Your task to perform on an android device: delete the emails in spam in the gmail app Image 0: 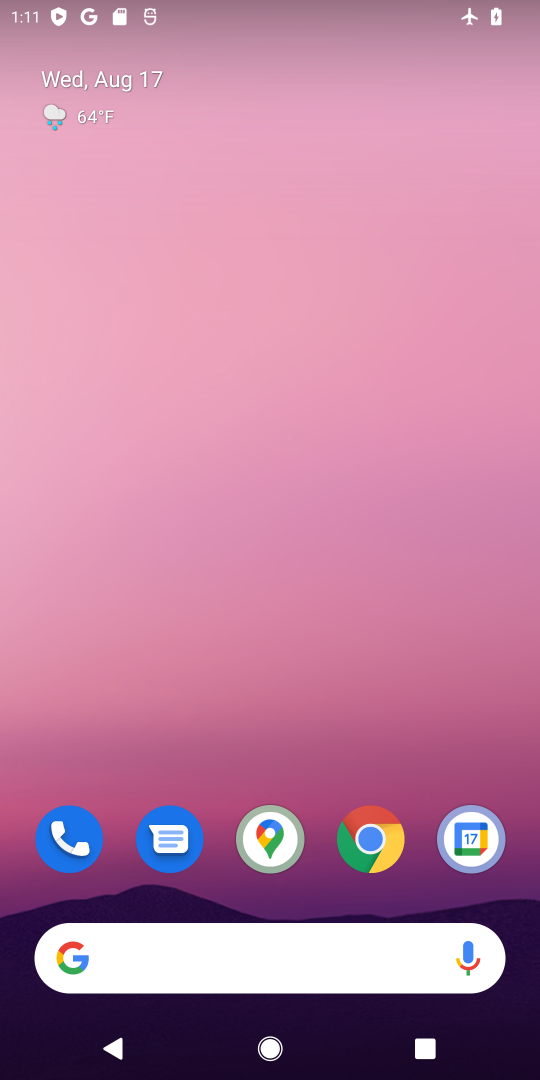
Step 0: drag from (286, 977) to (306, 214)
Your task to perform on an android device: delete the emails in spam in the gmail app Image 1: 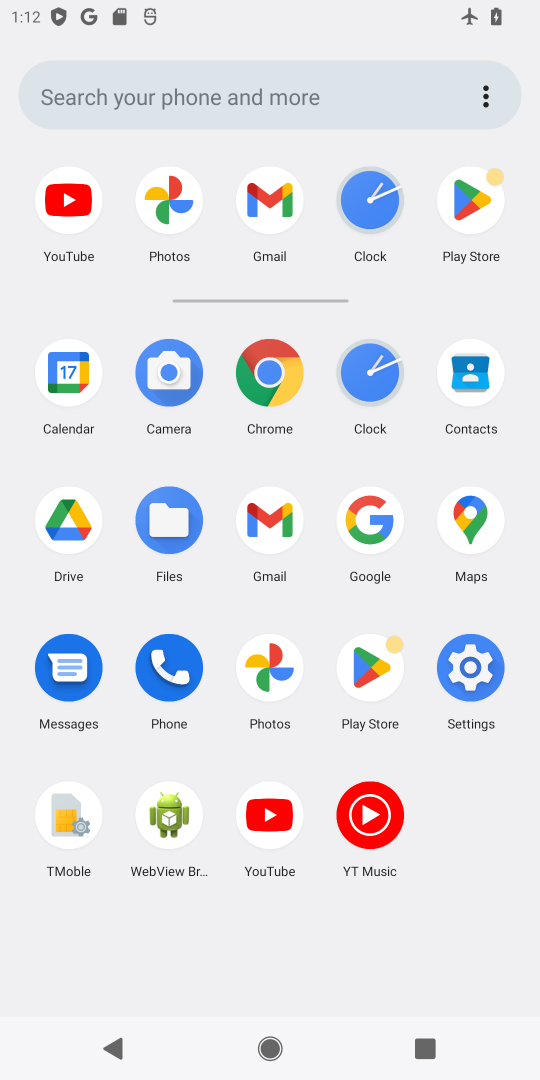
Step 1: click (269, 203)
Your task to perform on an android device: delete the emails in spam in the gmail app Image 2: 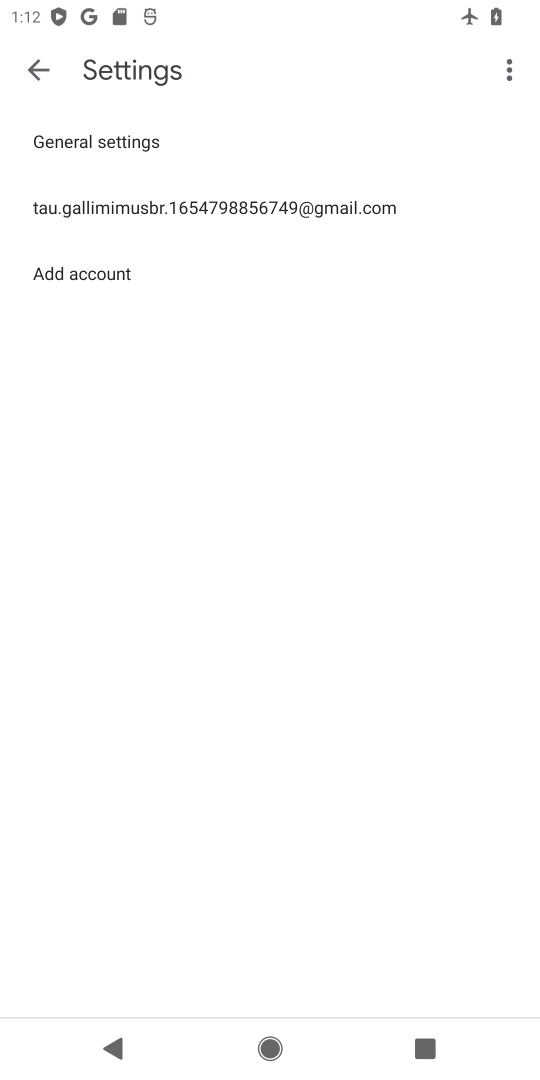
Step 2: press back button
Your task to perform on an android device: delete the emails in spam in the gmail app Image 3: 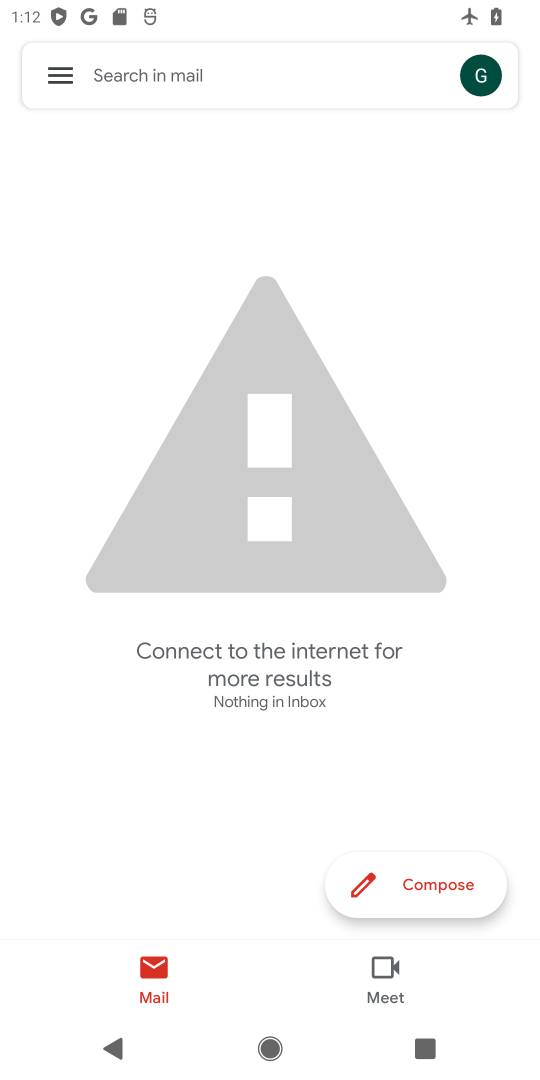
Step 3: click (65, 81)
Your task to perform on an android device: delete the emails in spam in the gmail app Image 4: 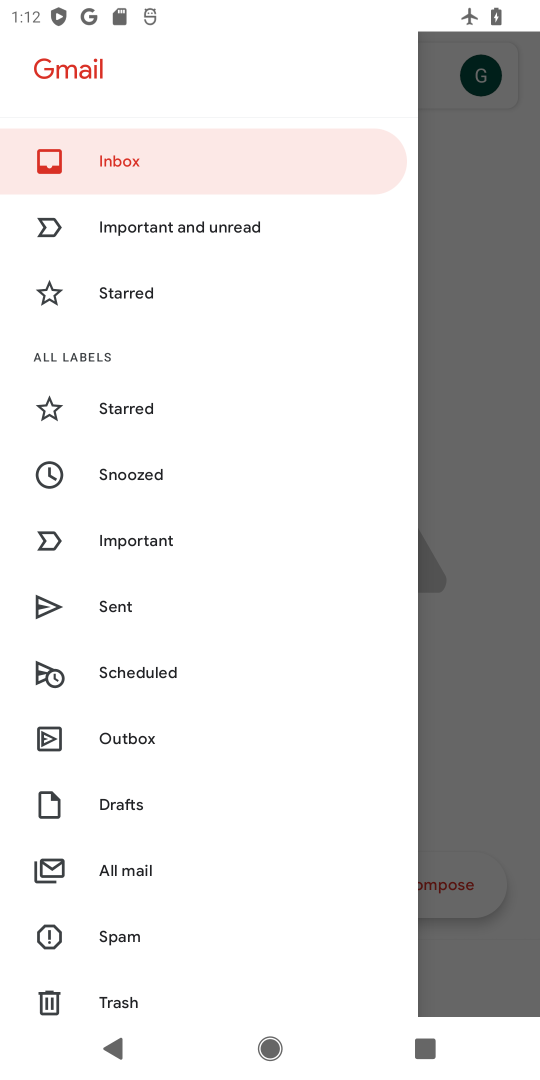
Step 4: click (134, 926)
Your task to perform on an android device: delete the emails in spam in the gmail app Image 5: 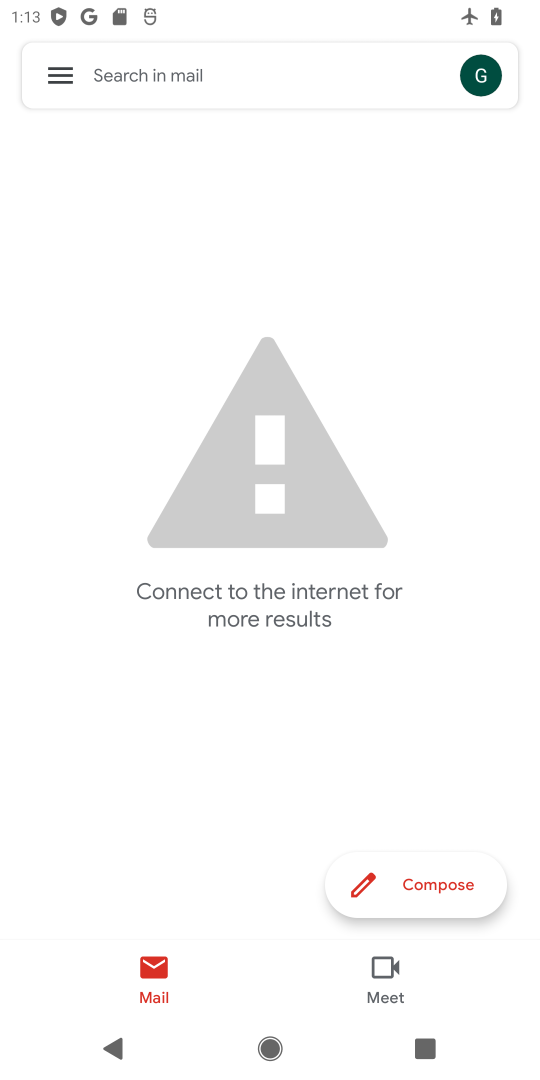
Step 5: task complete